Your task to perform on an android device: What's the weather going to be tomorrow? Image 0: 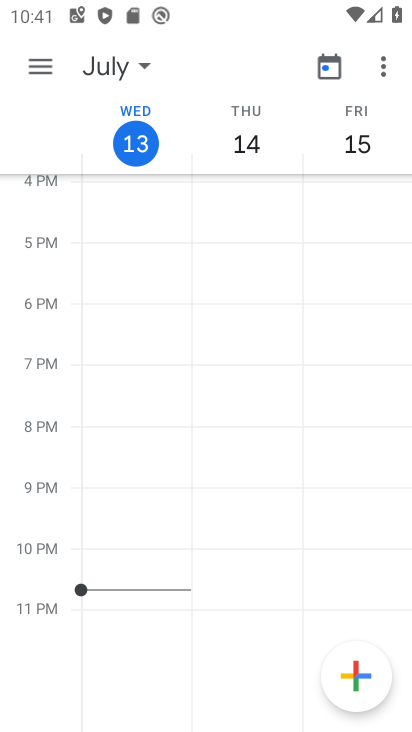
Step 0: press home button
Your task to perform on an android device: What's the weather going to be tomorrow? Image 1: 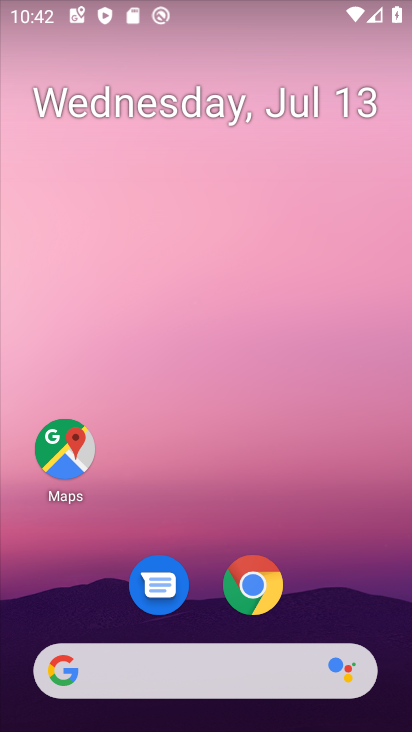
Step 1: drag from (212, 521) to (208, 25)
Your task to perform on an android device: What's the weather going to be tomorrow? Image 2: 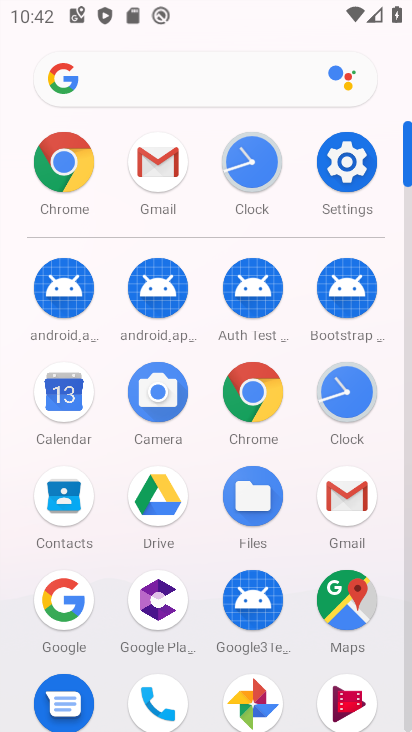
Step 2: click (206, 81)
Your task to perform on an android device: What's the weather going to be tomorrow? Image 3: 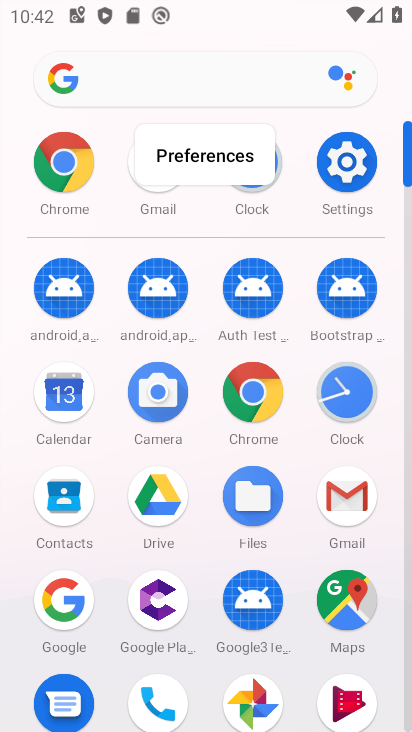
Step 3: click (117, 79)
Your task to perform on an android device: What's the weather going to be tomorrow? Image 4: 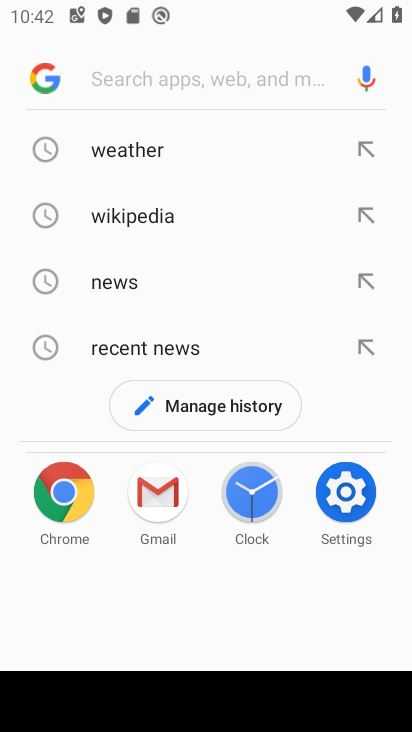
Step 4: click (109, 143)
Your task to perform on an android device: What's the weather going to be tomorrow? Image 5: 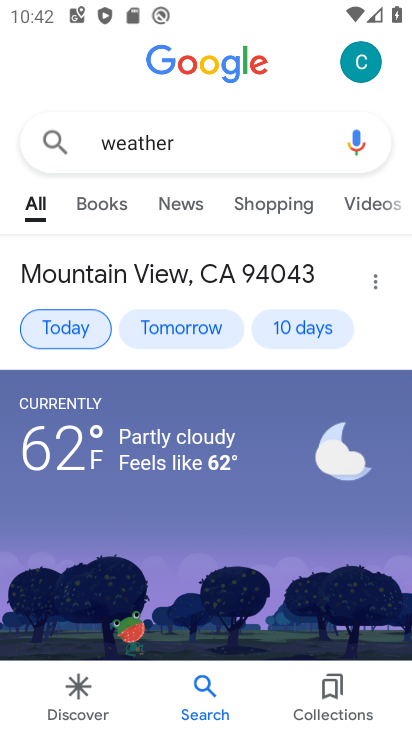
Step 5: click (74, 330)
Your task to perform on an android device: What's the weather going to be tomorrow? Image 6: 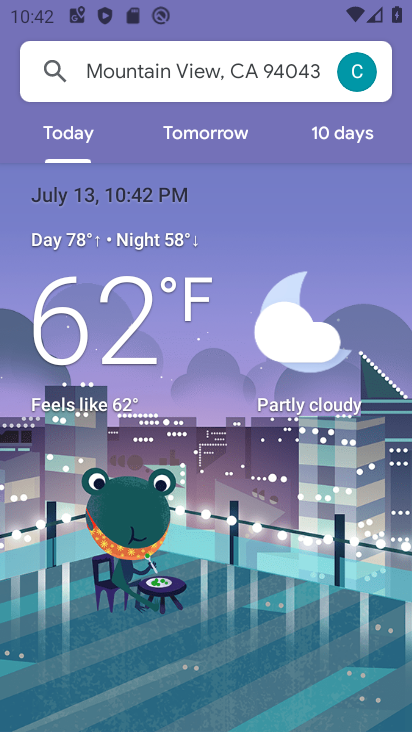
Step 6: click (202, 135)
Your task to perform on an android device: What's the weather going to be tomorrow? Image 7: 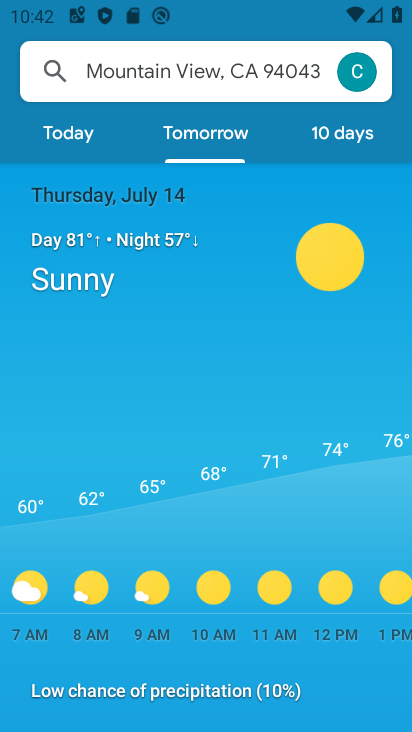
Step 7: task complete